Your task to perform on an android device: What's on my calendar tomorrow? Image 0: 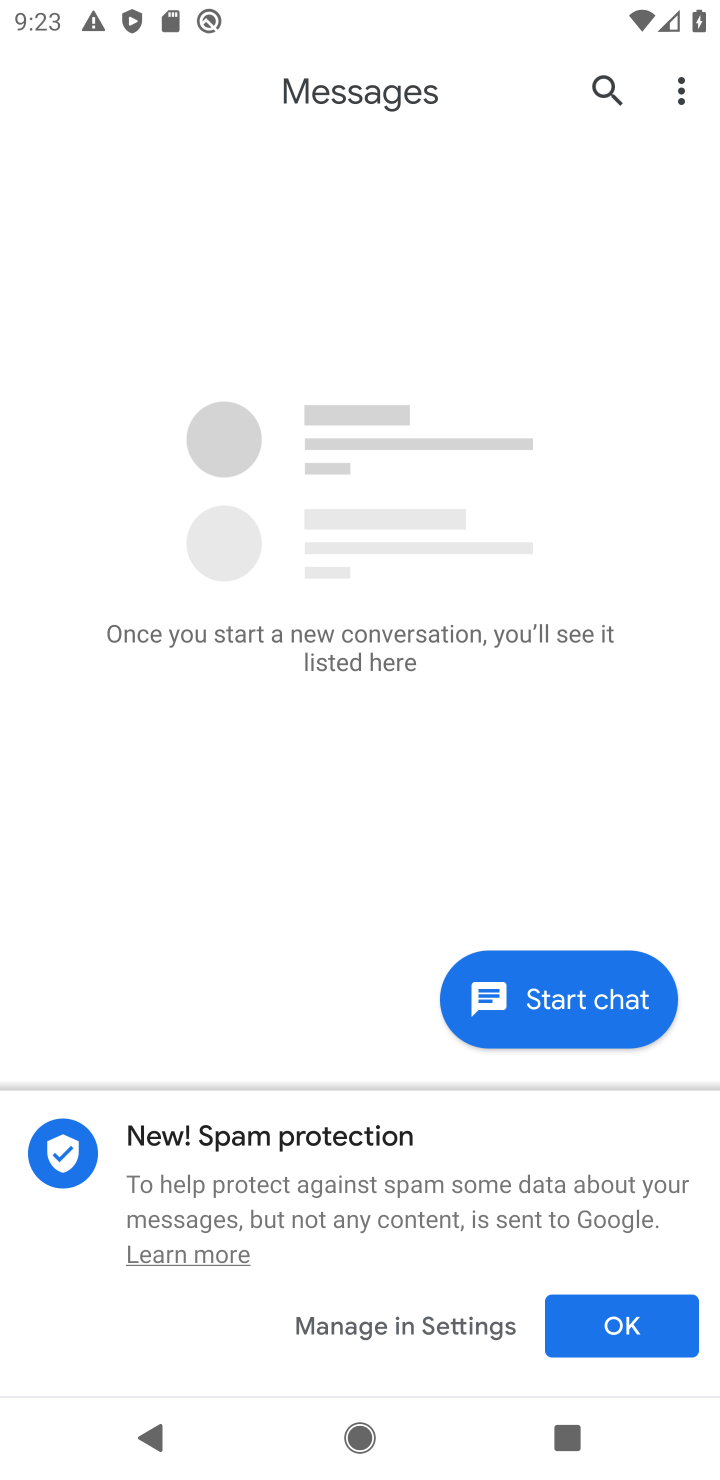
Step 0: press home button
Your task to perform on an android device: What's on my calendar tomorrow? Image 1: 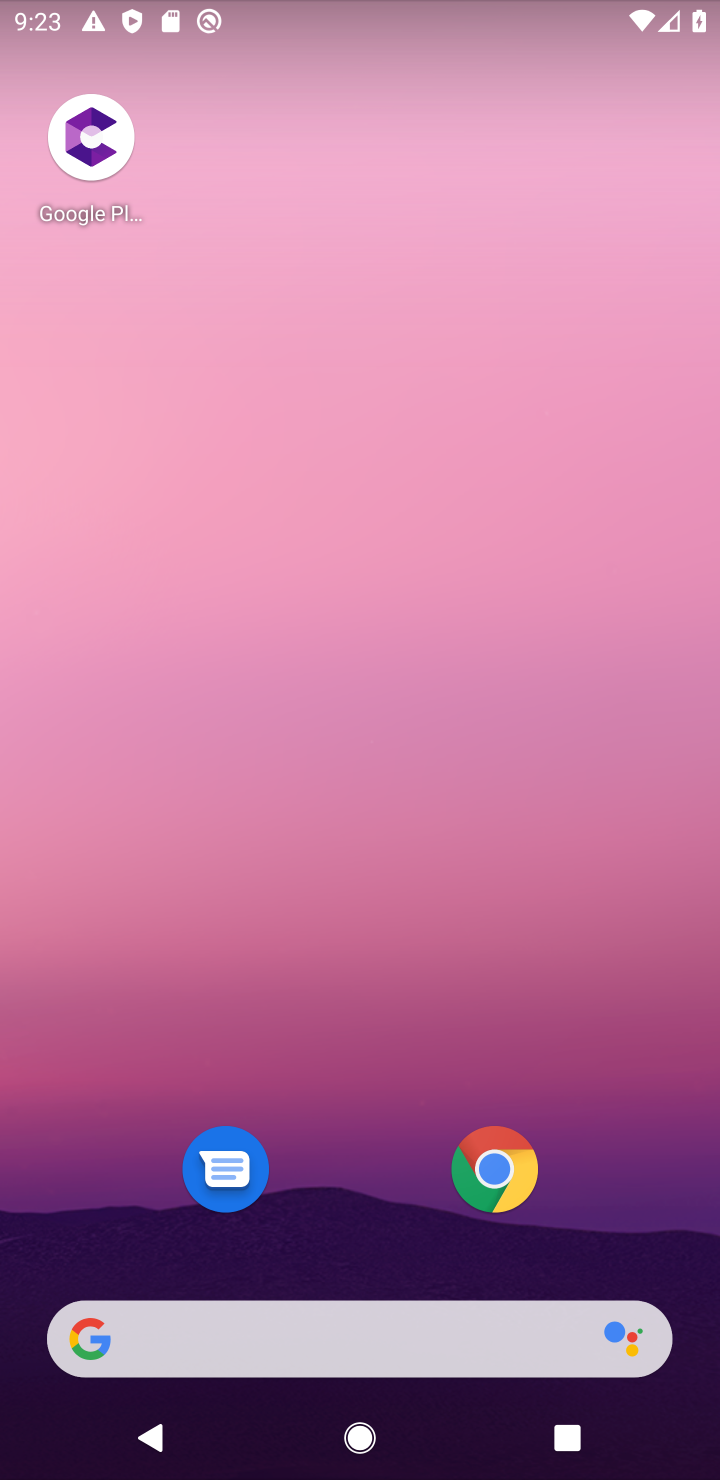
Step 1: drag from (370, 1221) to (364, 211)
Your task to perform on an android device: What's on my calendar tomorrow? Image 2: 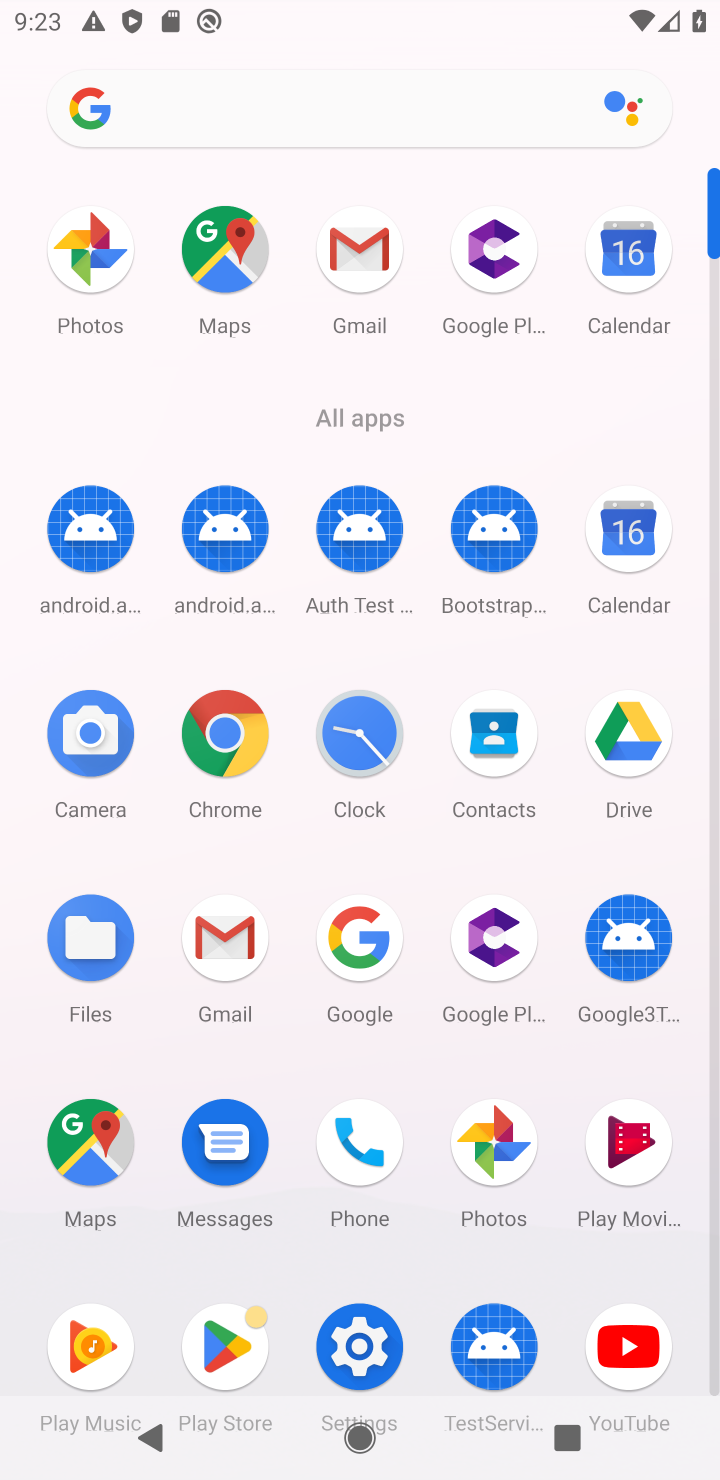
Step 2: click (623, 305)
Your task to perform on an android device: What's on my calendar tomorrow? Image 3: 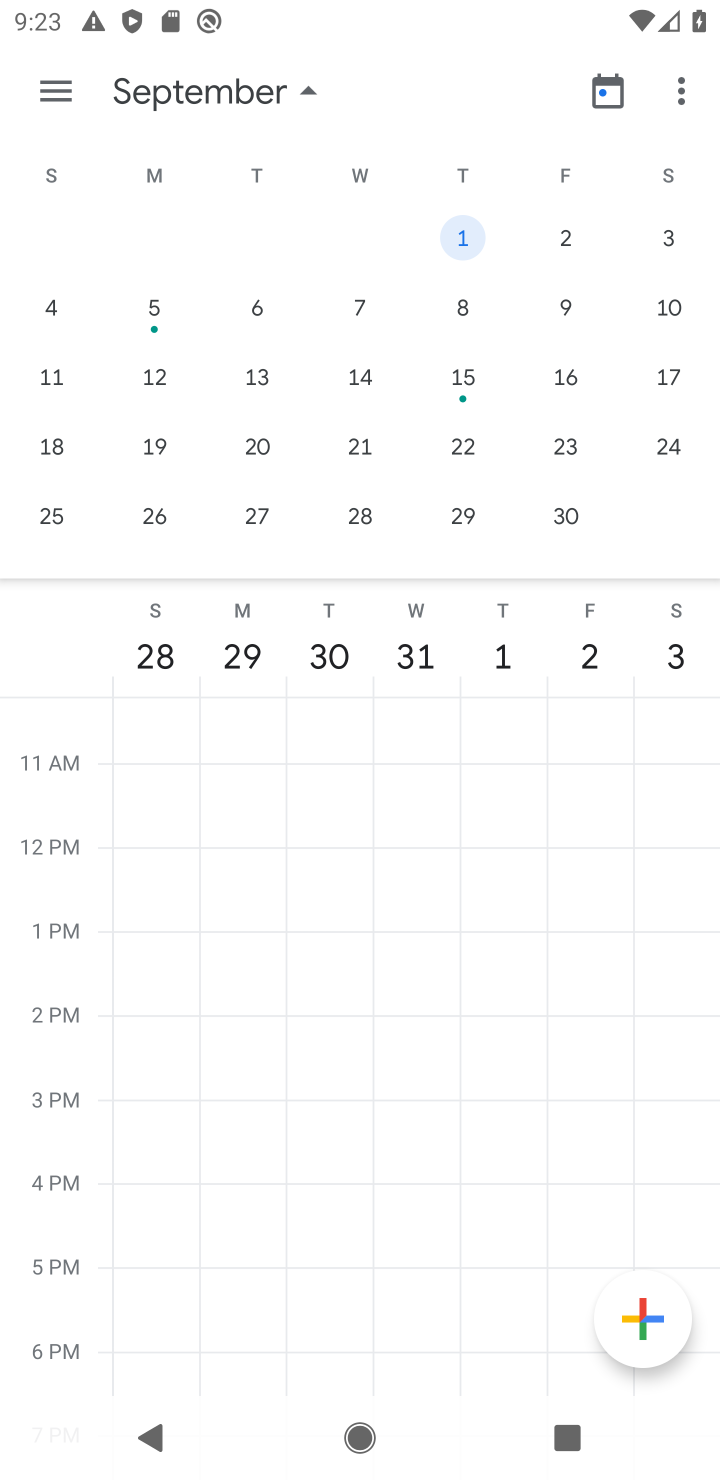
Step 3: click (234, 101)
Your task to perform on an android device: What's on my calendar tomorrow? Image 4: 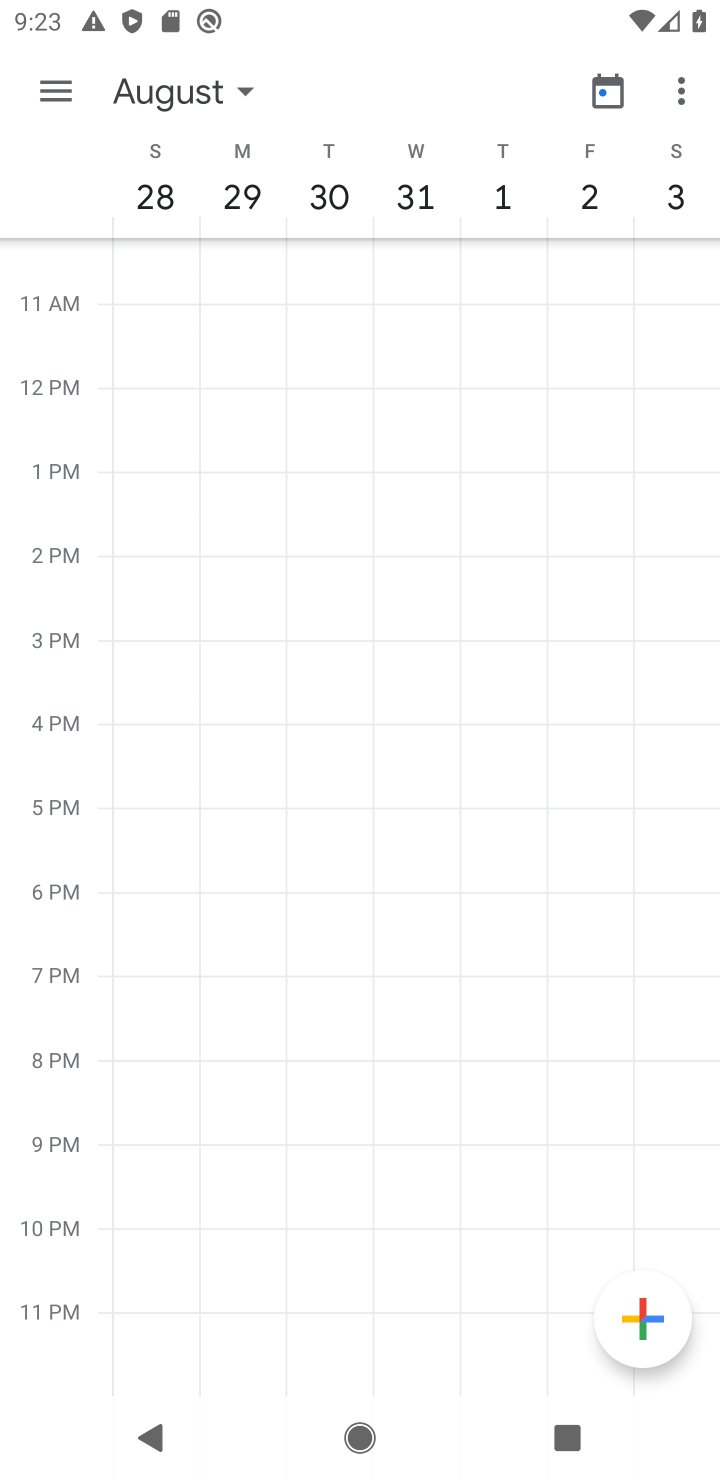
Step 4: click (234, 101)
Your task to perform on an android device: What's on my calendar tomorrow? Image 5: 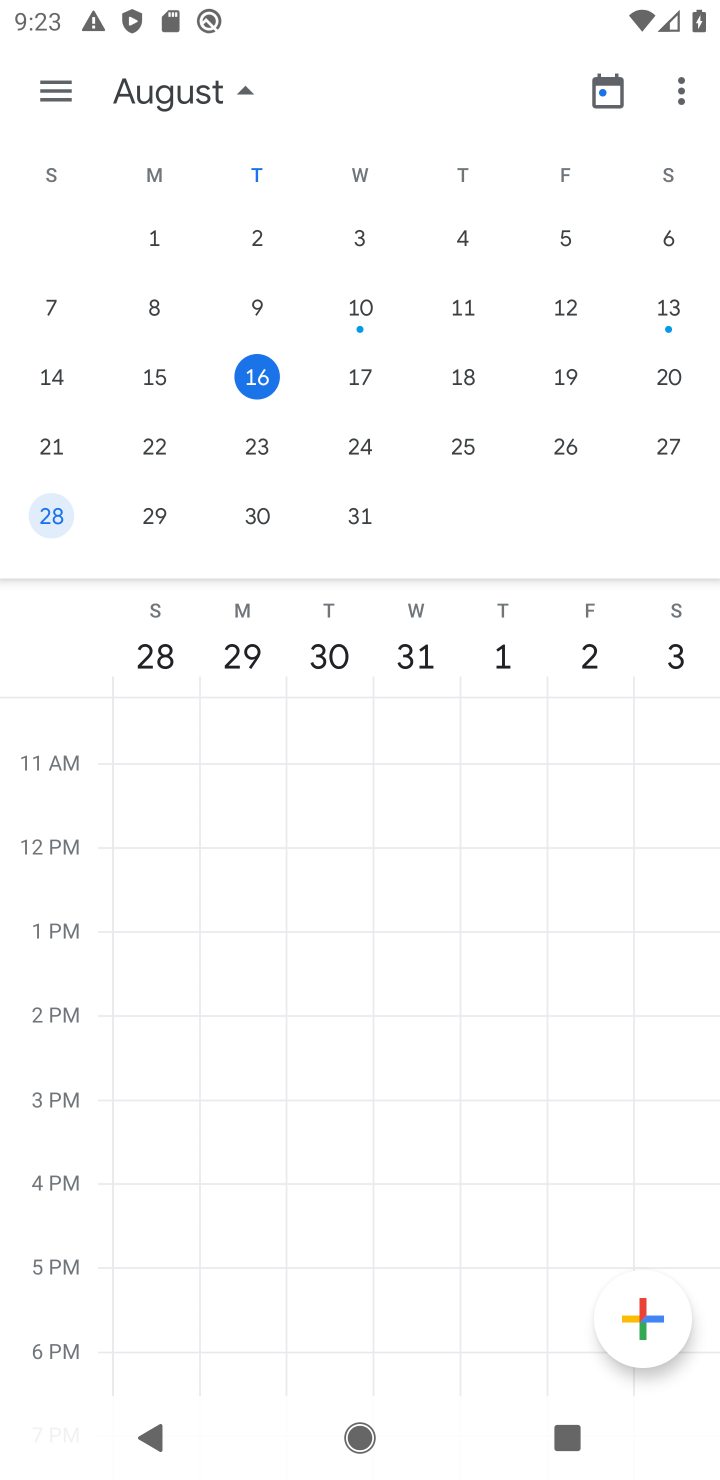
Step 5: click (356, 386)
Your task to perform on an android device: What's on my calendar tomorrow? Image 6: 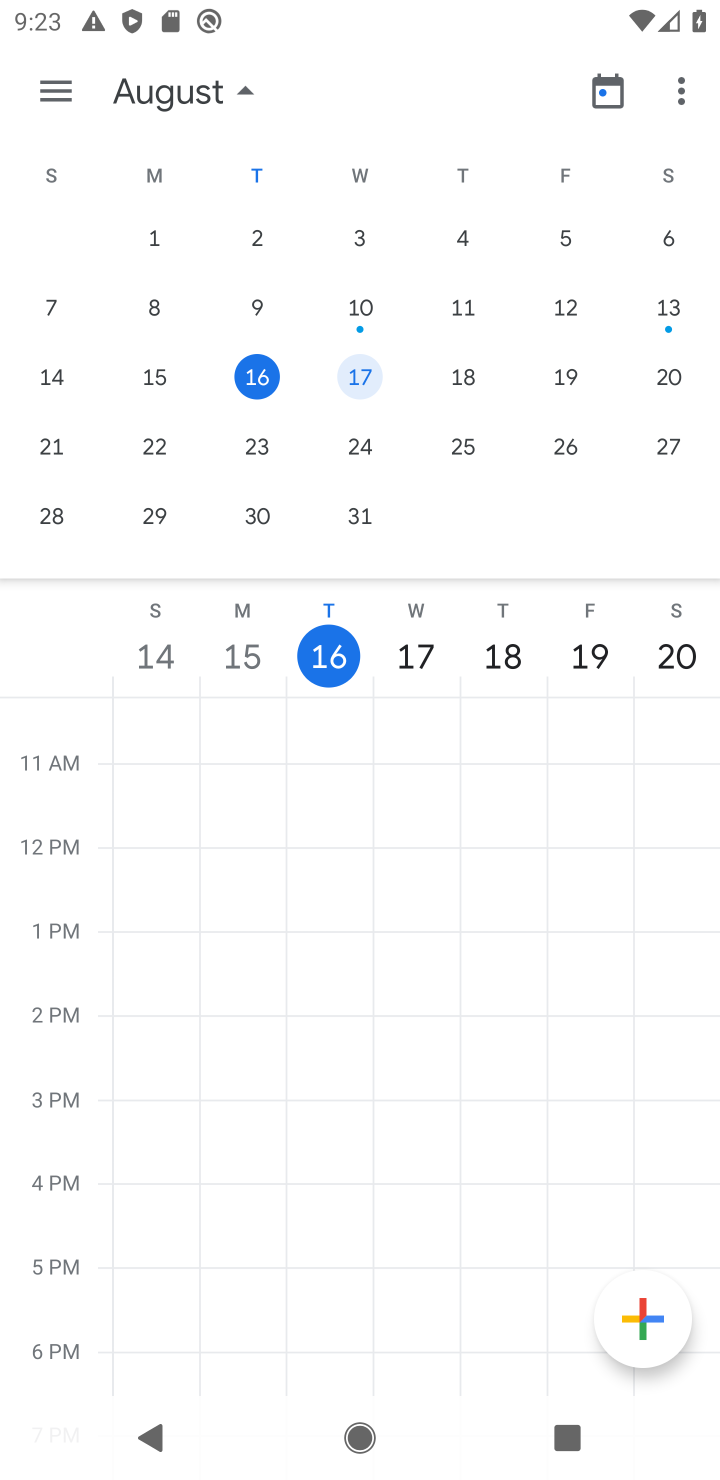
Step 6: task complete